Your task to perform on an android device: choose inbox layout in the gmail app Image 0: 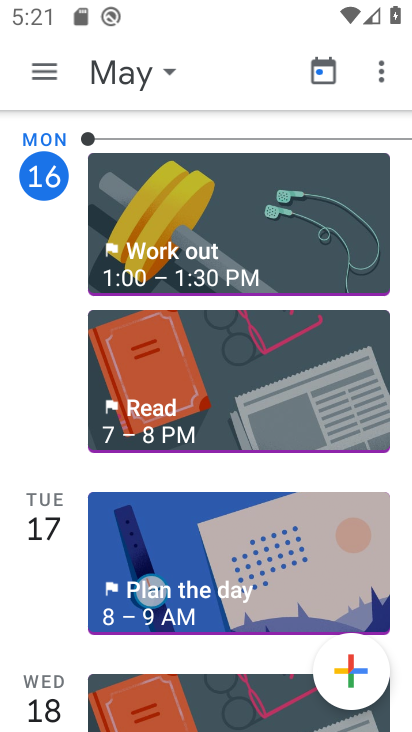
Step 0: press back button
Your task to perform on an android device: choose inbox layout in the gmail app Image 1: 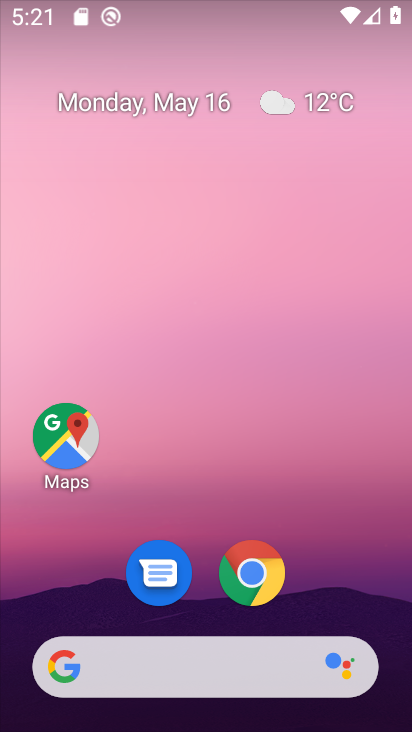
Step 1: drag from (206, 478) to (287, 43)
Your task to perform on an android device: choose inbox layout in the gmail app Image 2: 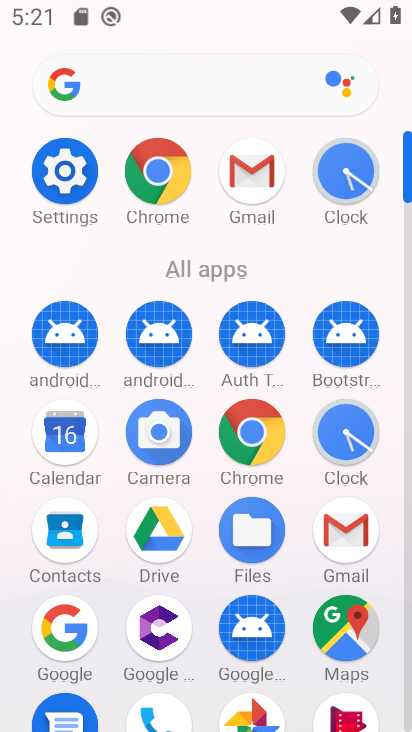
Step 2: click (264, 173)
Your task to perform on an android device: choose inbox layout in the gmail app Image 3: 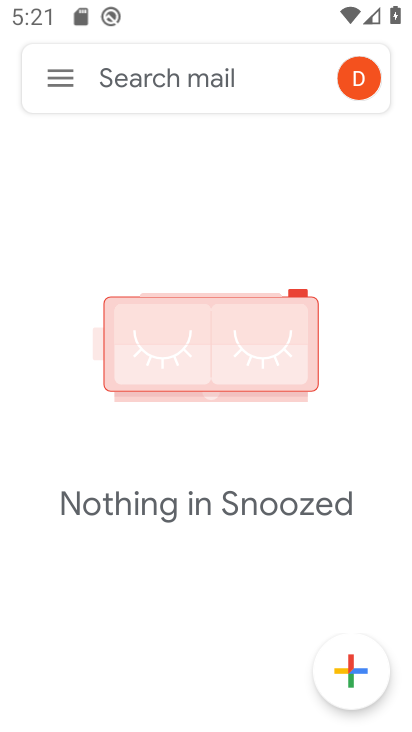
Step 3: click (61, 68)
Your task to perform on an android device: choose inbox layout in the gmail app Image 4: 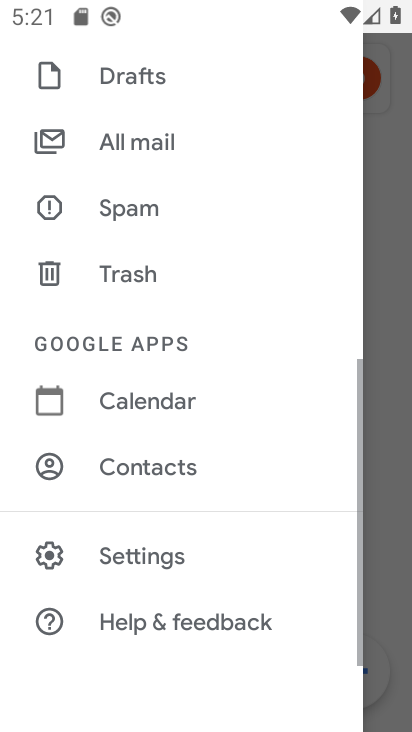
Step 4: click (135, 551)
Your task to perform on an android device: choose inbox layout in the gmail app Image 5: 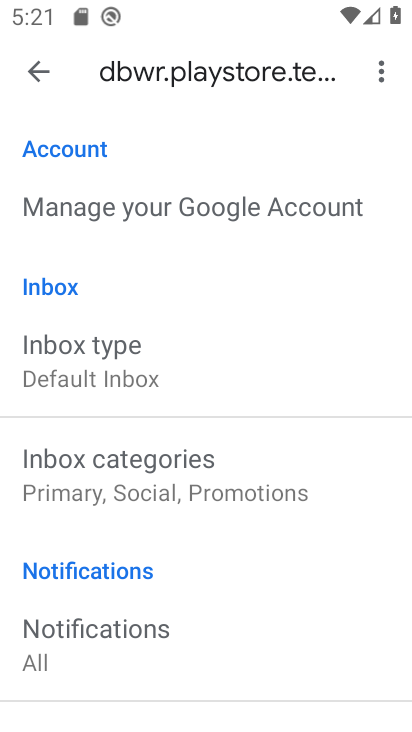
Step 5: click (78, 375)
Your task to perform on an android device: choose inbox layout in the gmail app Image 6: 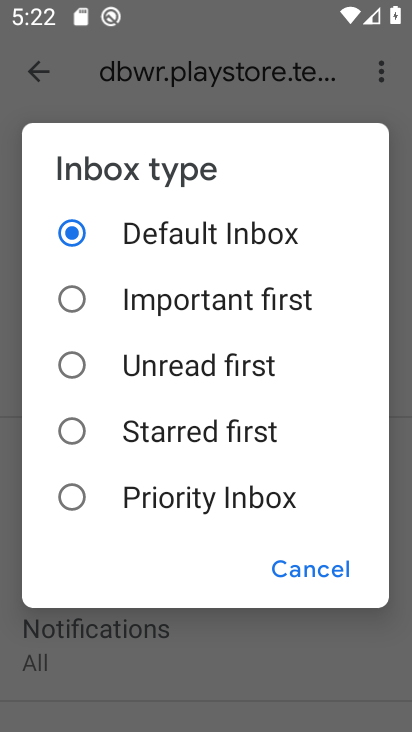
Step 6: click (66, 287)
Your task to perform on an android device: choose inbox layout in the gmail app Image 7: 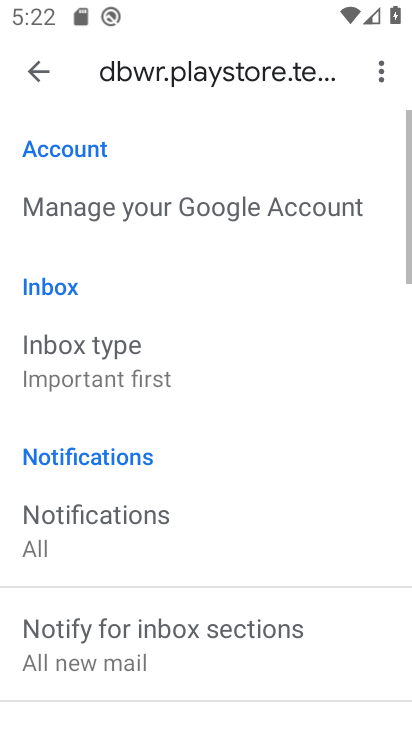
Step 7: task complete